Your task to perform on an android device: Open Chrome and go to the settings page Image 0: 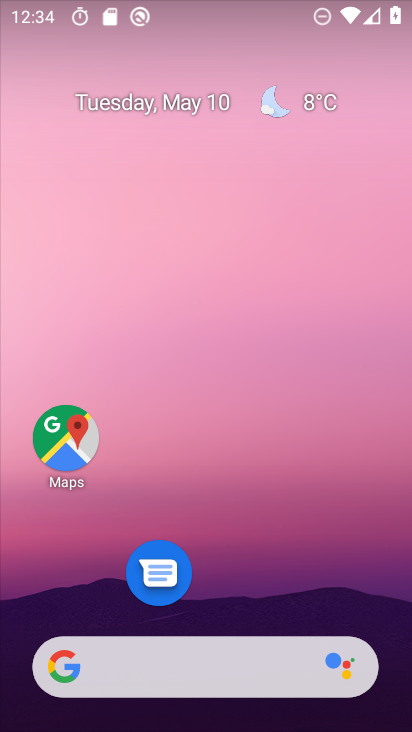
Step 0: drag from (218, 605) to (289, 42)
Your task to perform on an android device: Open Chrome and go to the settings page Image 1: 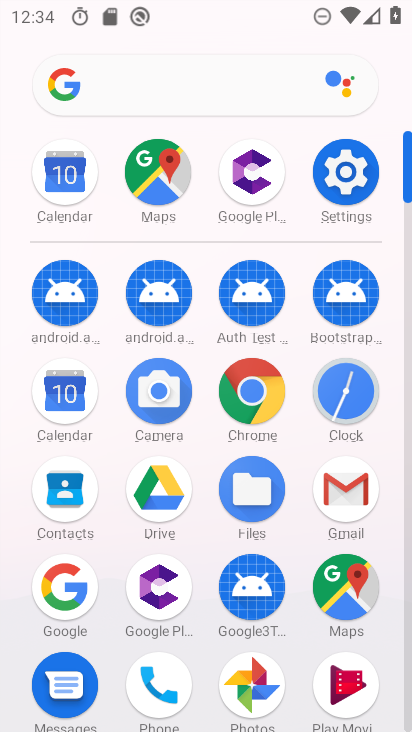
Step 1: click (271, 393)
Your task to perform on an android device: Open Chrome and go to the settings page Image 2: 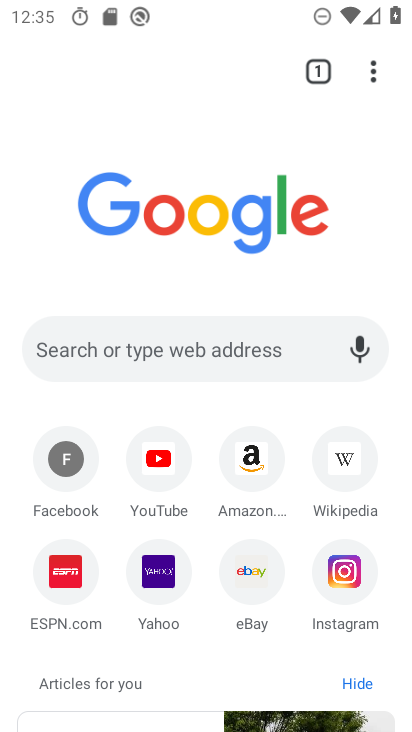
Step 2: click (380, 79)
Your task to perform on an android device: Open Chrome and go to the settings page Image 3: 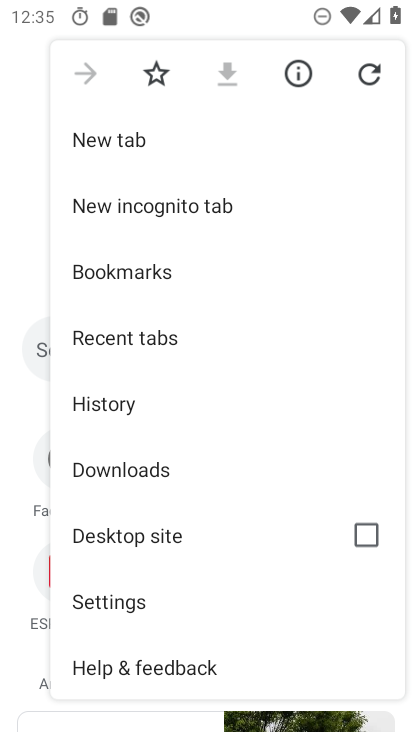
Step 3: click (140, 605)
Your task to perform on an android device: Open Chrome and go to the settings page Image 4: 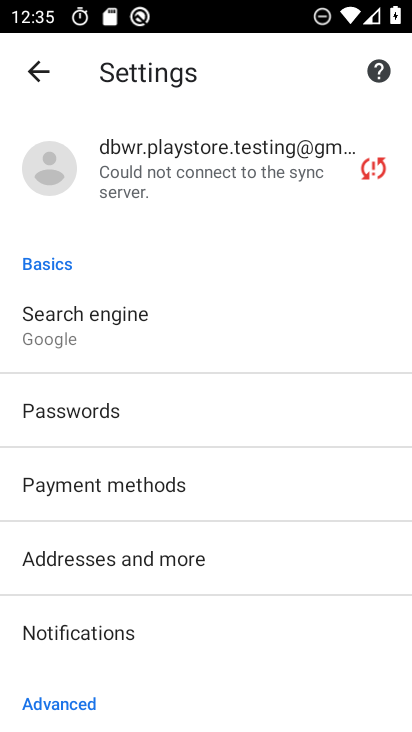
Step 4: task complete